Your task to perform on an android device: change notifications settings Image 0: 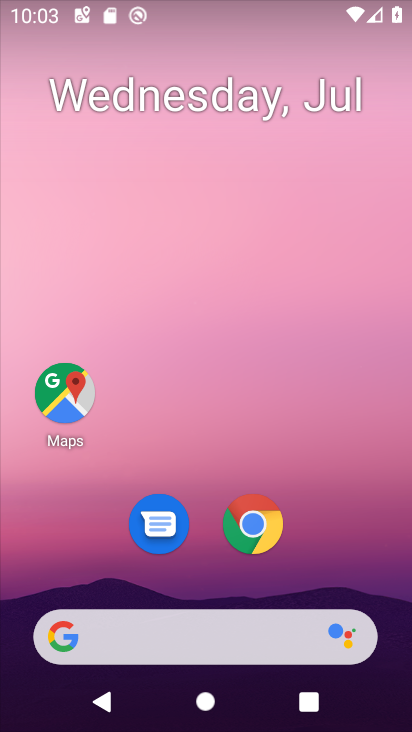
Step 0: drag from (317, 475) to (305, 67)
Your task to perform on an android device: change notifications settings Image 1: 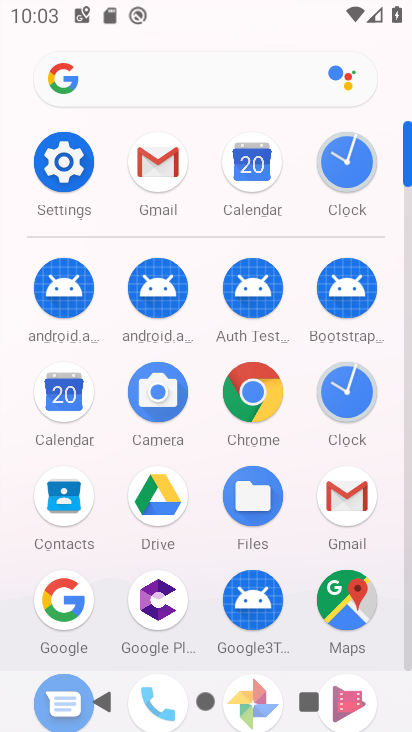
Step 1: click (65, 163)
Your task to perform on an android device: change notifications settings Image 2: 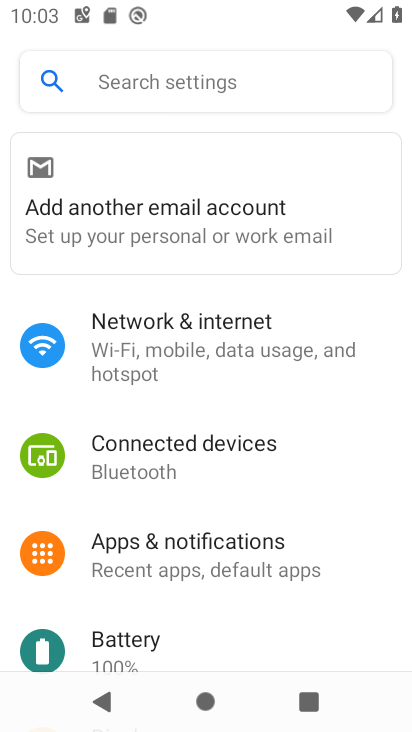
Step 2: click (242, 548)
Your task to perform on an android device: change notifications settings Image 3: 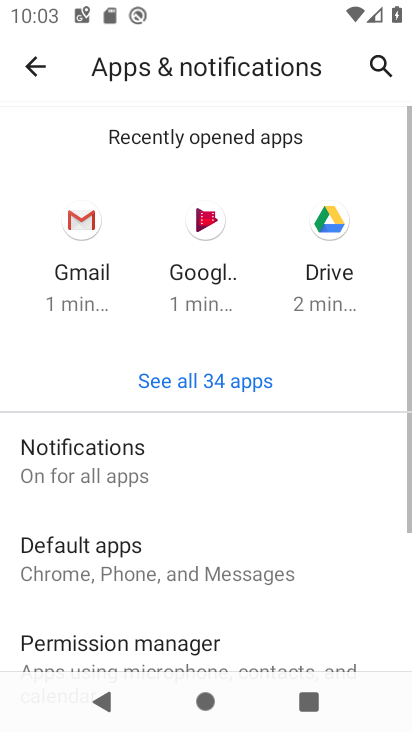
Step 3: click (134, 456)
Your task to perform on an android device: change notifications settings Image 4: 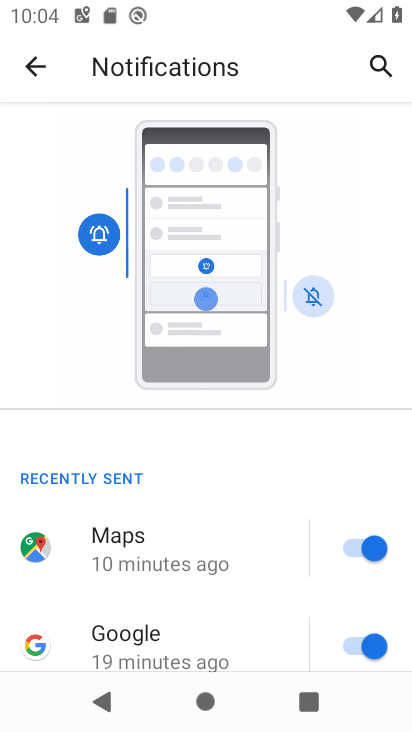
Step 4: drag from (252, 559) to (234, 83)
Your task to perform on an android device: change notifications settings Image 5: 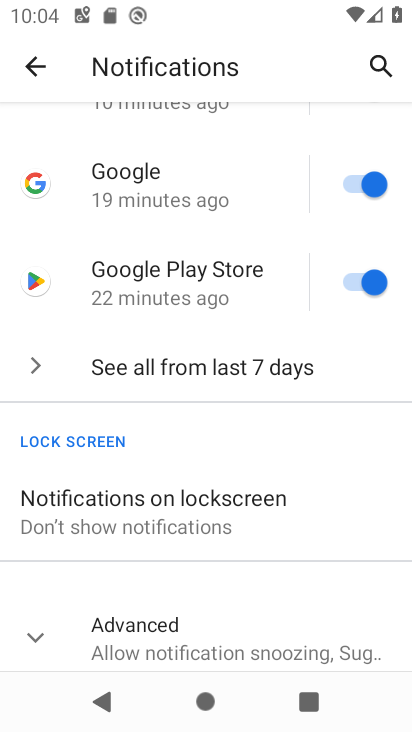
Step 5: click (248, 364)
Your task to perform on an android device: change notifications settings Image 6: 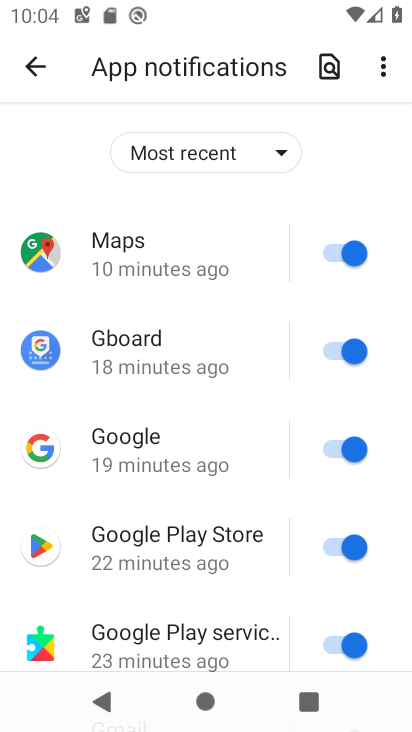
Step 6: click (342, 252)
Your task to perform on an android device: change notifications settings Image 7: 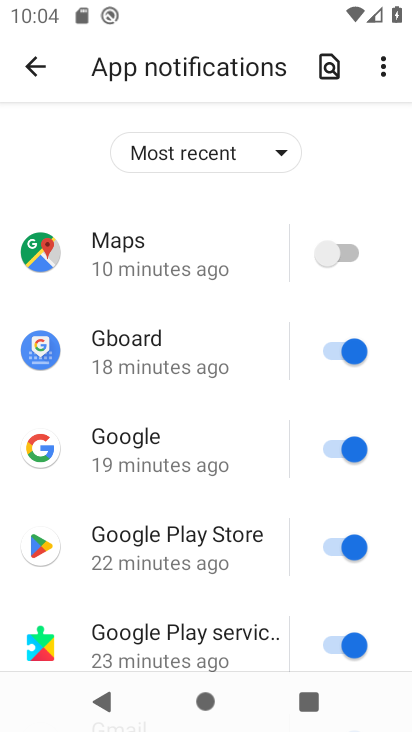
Step 7: click (349, 351)
Your task to perform on an android device: change notifications settings Image 8: 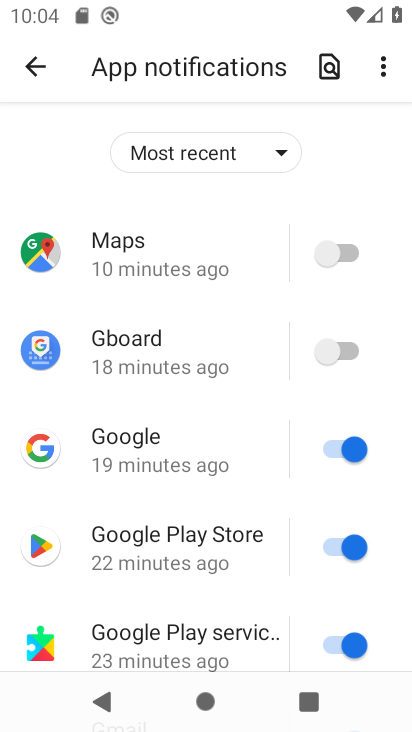
Step 8: click (349, 454)
Your task to perform on an android device: change notifications settings Image 9: 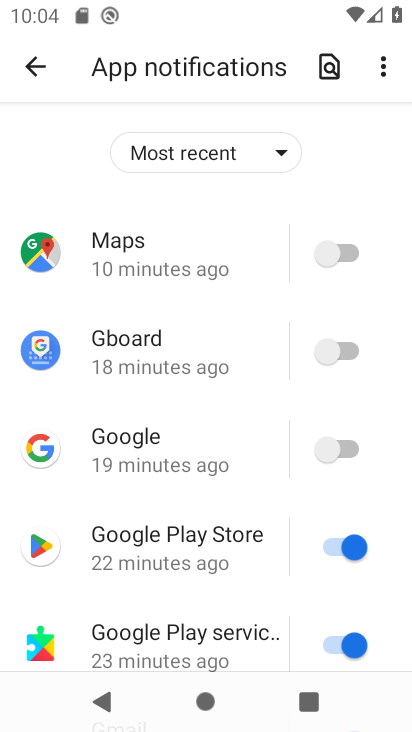
Step 9: click (349, 550)
Your task to perform on an android device: change notifications settings Image 10: 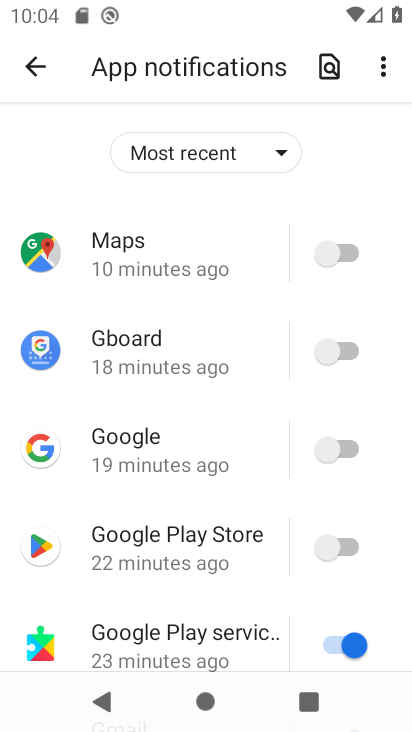
Step 10: click (347, 646)
Your task to perform on an android device: change notifications settings Image 11: 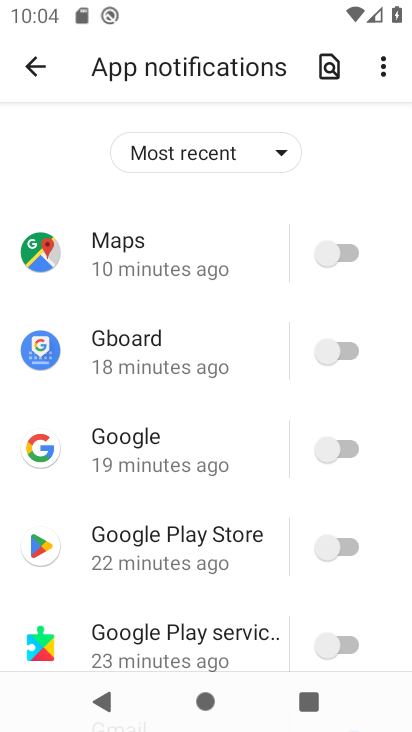
Step 11: drag from (201, 519) to (230, 85)
Your task to perform on an android device: change notifications settings Image 12: 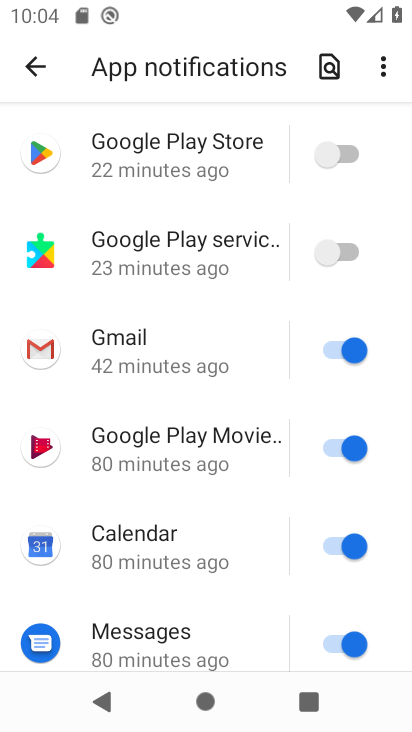
Step 12: click (340, 348)
Your task to perform on an android device: change notifications settings Image 13: 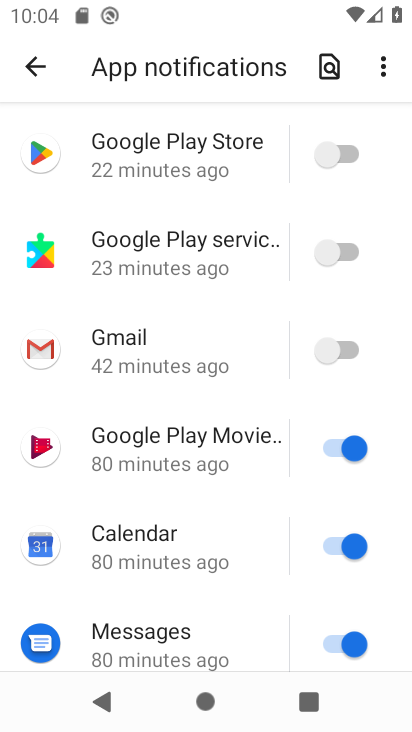
Step 13: click (345, 444)
Your task to perform on an android device: change notifications settings Image 14: 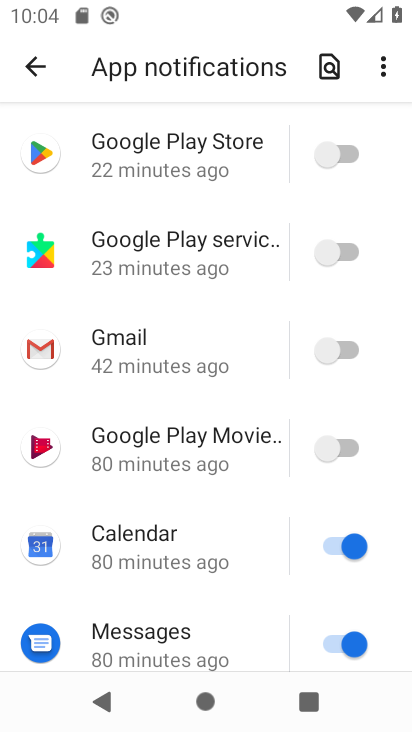
Step 14: click (347, 550)
Your task to perform on an android device: change notifications settings Image 15: 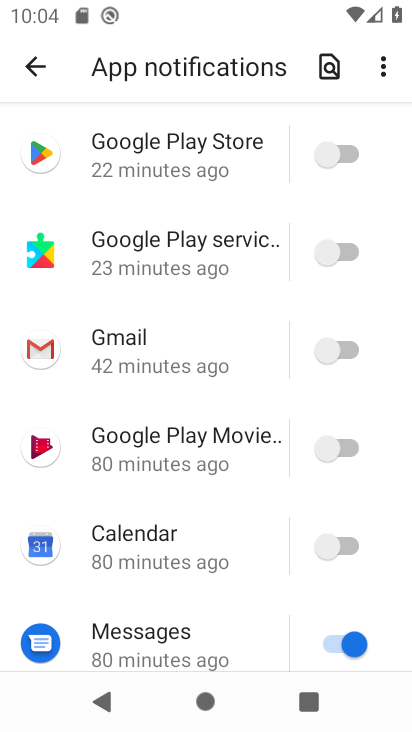
Step 15: click (349, 643)
Your task to perform on an android device: change notifications settings Image 16: 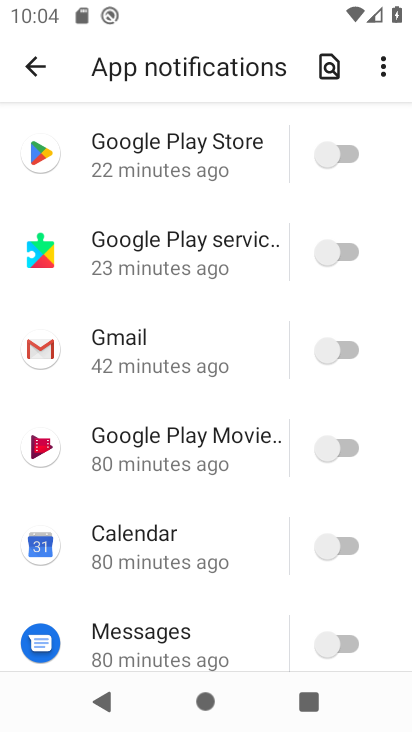
Step 16: drag from (235, 591) to (190, 269)
Your task to perform on an android device: change notifications settings Image 17: 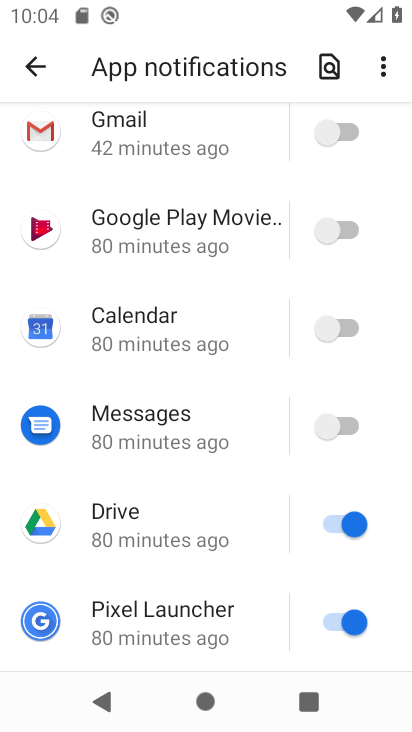
Step 17: click (338, 512)
Your task to perform on an android device: change notifications settings Image 18: 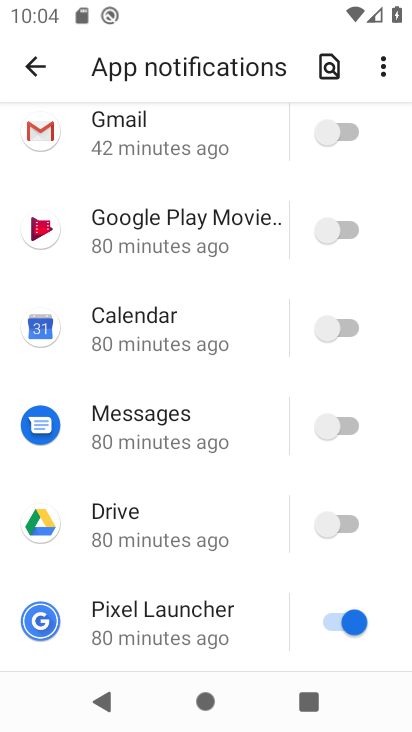
Step 18: click (342, 631)
Your task to perform on an android device: change notifications settings Image 19: 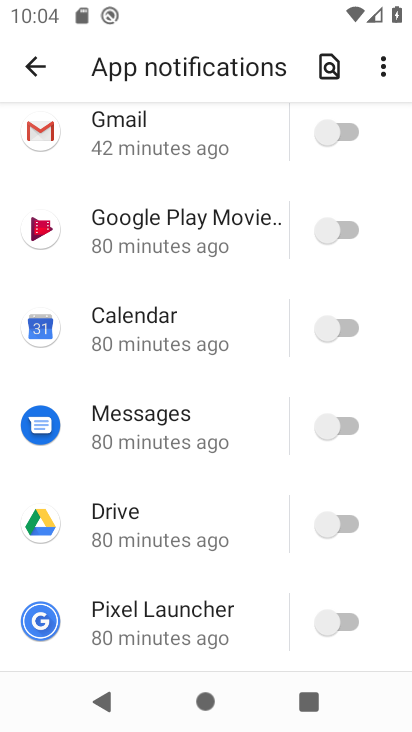
Step 19: task complete